Your task to perform on an android device: Is it going to rain tomorrow? Image 0: 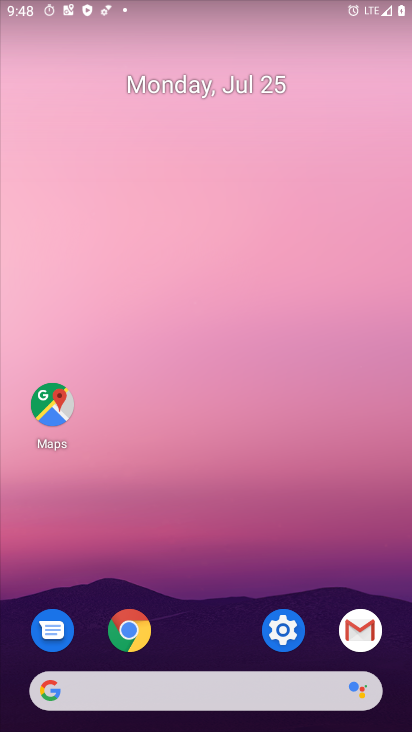
Step 0: click (213, 685)
Your task to perform on an android device: Is it going to rain tomorrow? Image 1: 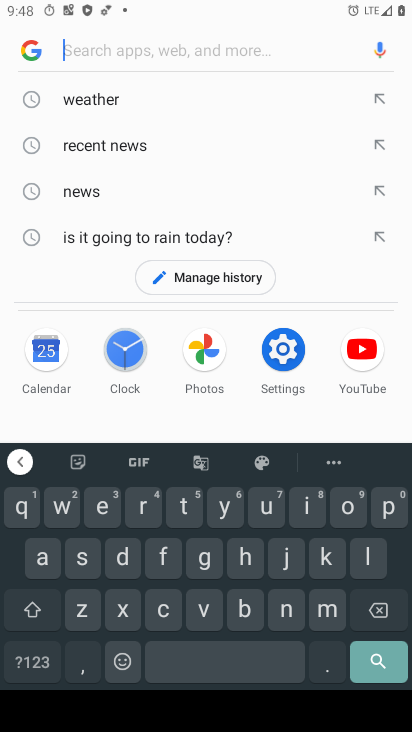
Step 1: click (300, 510)
Your task to perform on an android device: Is it going to rain tomorrow? Image 2: 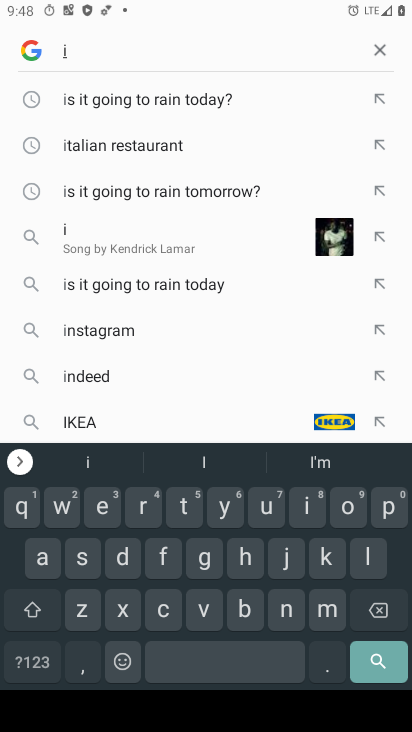
Step 2: click (138, 196)
Your task to perform on an android device: Is it going to rain tomorrow? Image 3: 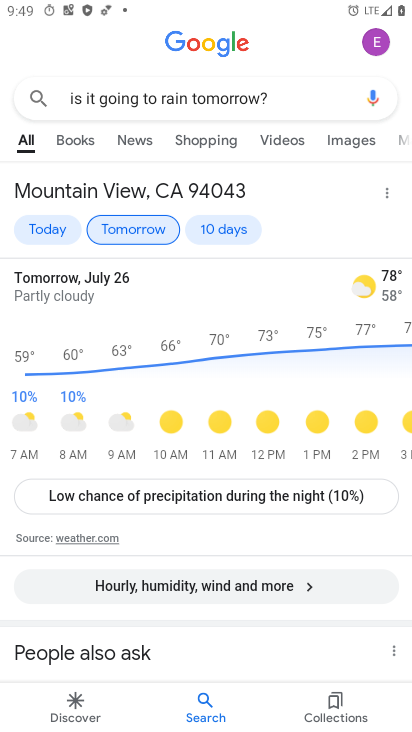
Step 3: task complete